Your task to perform on an android device: turn on the 12-hour format for clock Image 0: 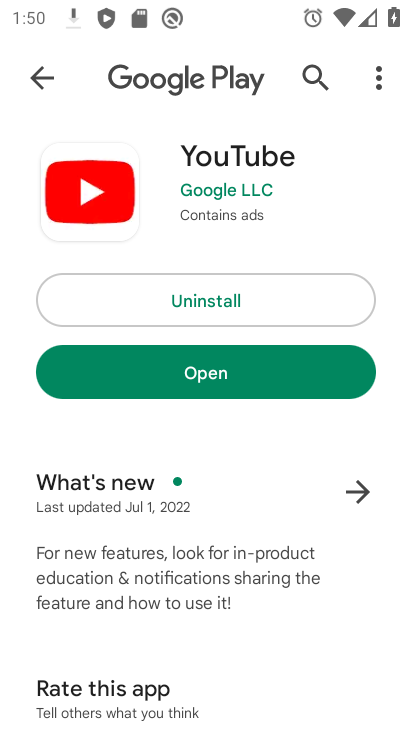
Step 0: press home button
Your task to perform on an android device: turn on the 12-hour format for clock Image 1: 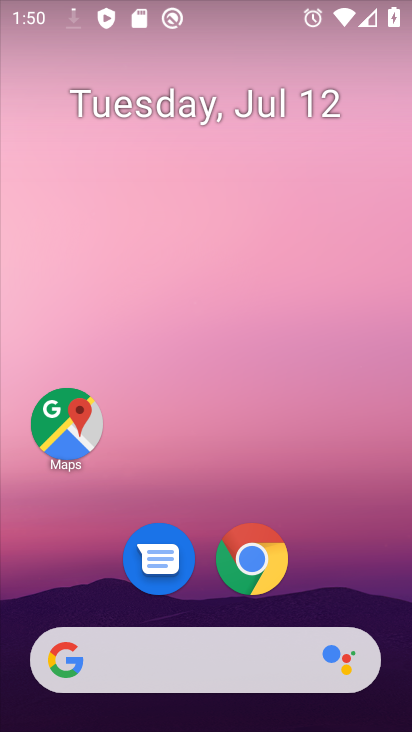
Step 1: drag from (364, 594) to (348, 103)
Your task to perform on an android device: turn on the 12-hour format for clock Image 2: 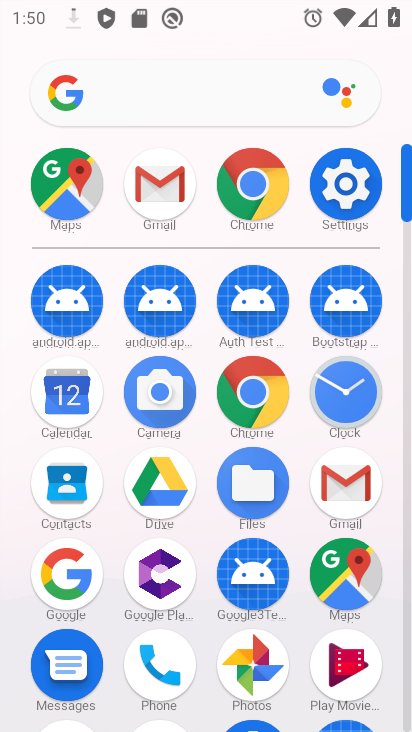
Step 2: click (348, 396)
Your task to perform on an android device: turn on the 12-hour format for clock Image 3: 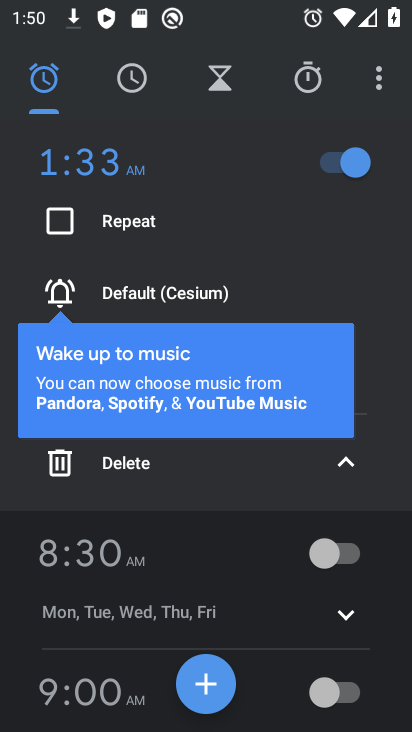
Step 3: click (380, 91)
Your task to perform on an android device: turn on the 12-hour format for clock Image 4: 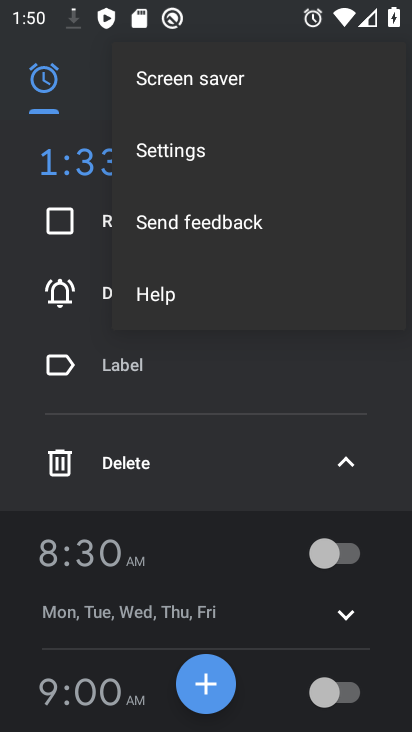
Step 4: click (214, 159)
Your task to perform on an android device: turn on the 12-hour format for clock Image 5: 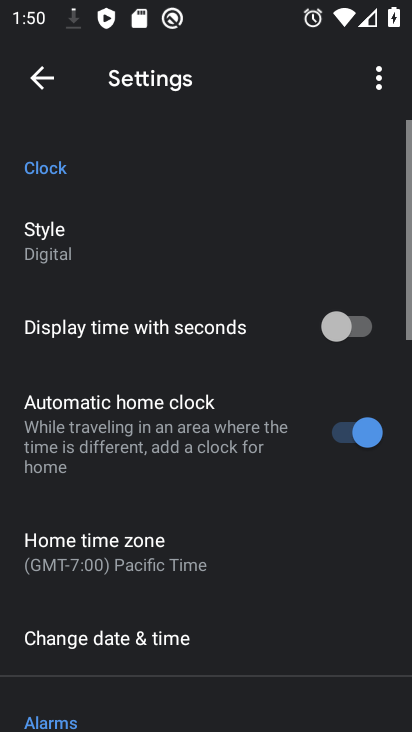
Step 5: drag from (279, 344) to (282, 275)
Your task to perform on an android device: turn on the 12-hour format for clock Image 6: 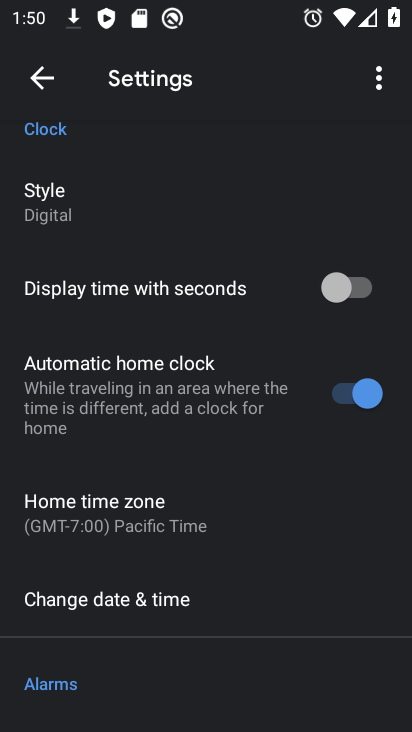
Step 6: drag from (273, 357) to (278, 294)
Your task to perform on an android device: turn on the 12-hour format for clock Image 7: 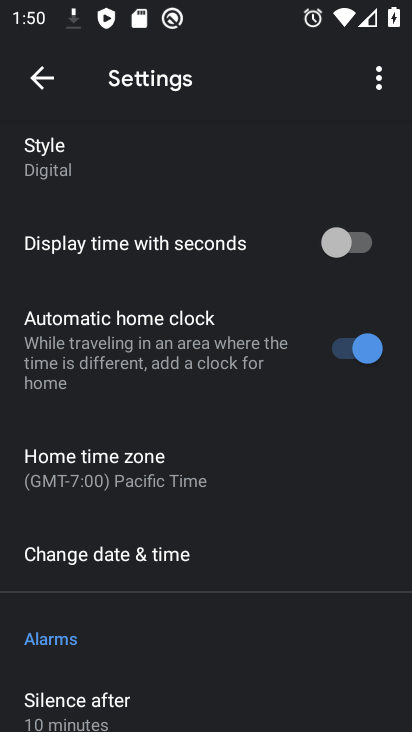
Step 7: drag from (276, 382) to (284, 308)
Your task to perform on an android device: turn on the 12-hour format for clock Image 8: 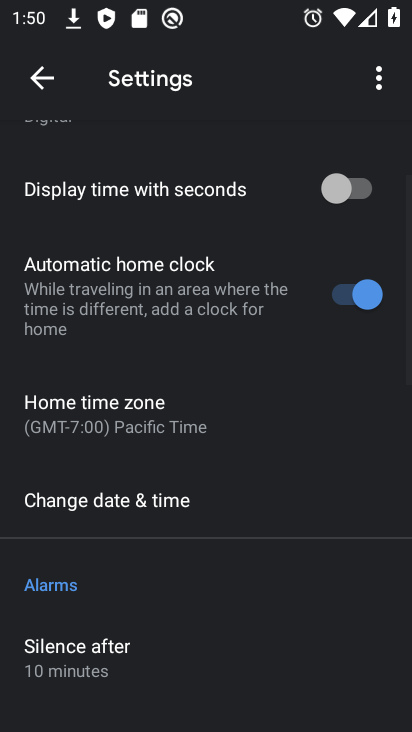
Step 8: drag from (277, 383) to (288, 310)
Your task to perform on an android device: turn on the 12-hour format for clock Image 9: 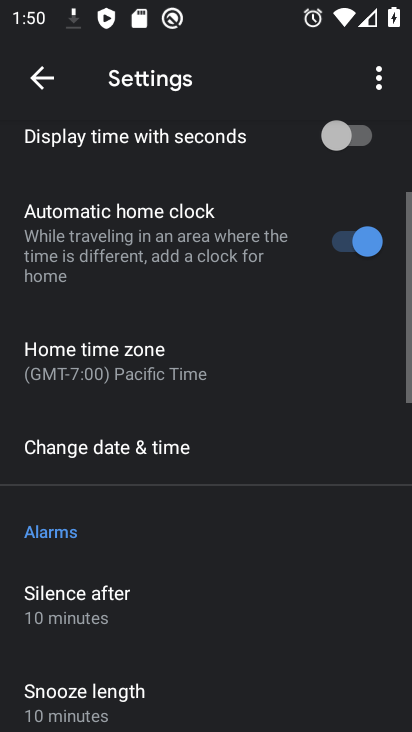
Step 9: drag from (281, 386) to (281, 304)
Your task to perform on an android device: turn on the 12-hour format for clock Image 10: 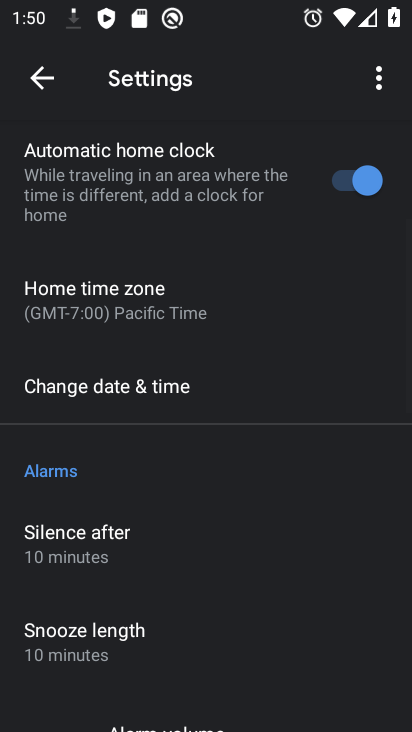
Step 10: drag from (270, 398) to (273, 301)
Your task to perform on an android device: turn on the 12-hour format for clock Image 11: 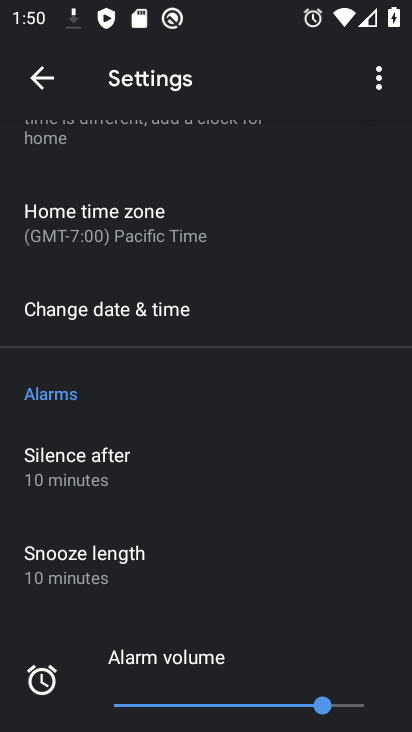
Step 11: click (266, 320)
Your task to perform on an android device: turn on the 12-hour format for clock Image 12: 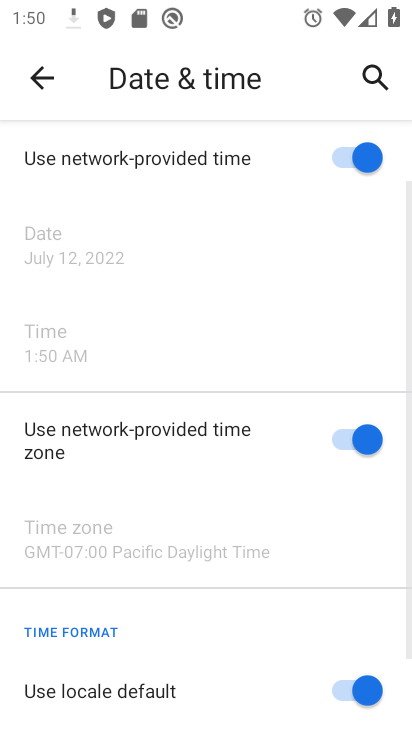
Step 12: task complete